Your task to perform on an android device: toggle show notifications on the lock screen Image 0: 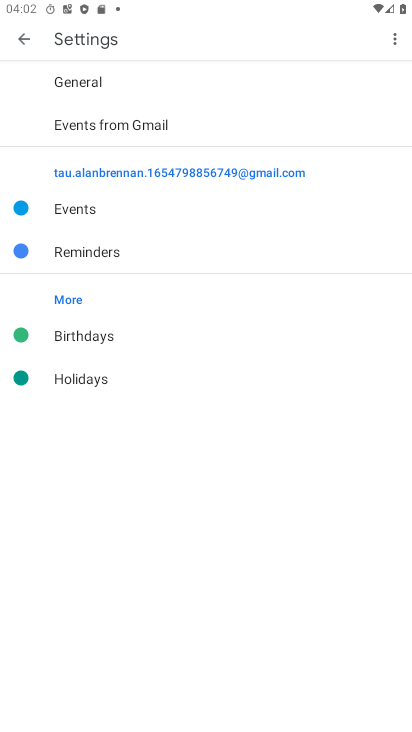
Step 0: press home button
Your task to perform on an android device: toggle show notifications on the lock screen Image 1: 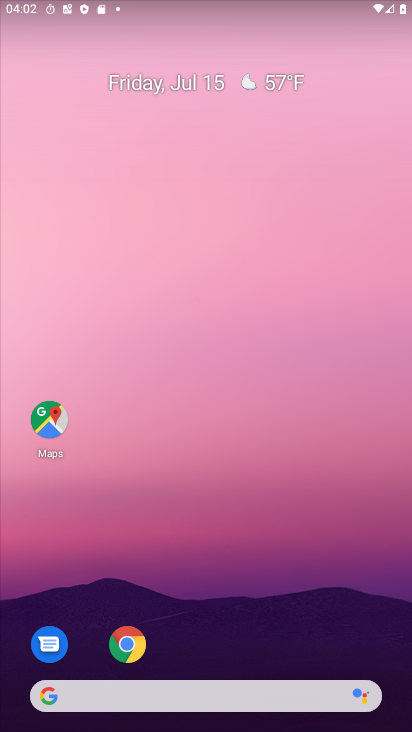
Step 1: drag from (276, 617) to (205, 9)
Your task to perform on an android device: toggle show notifications on the lock screen Image 2: 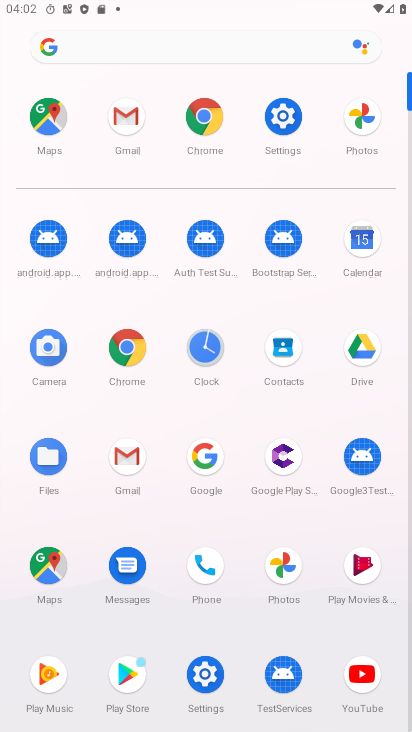
Step 2: click (286, 123)
Your task to perform on an android device: toggle show notifications on the lock screen Image 3: 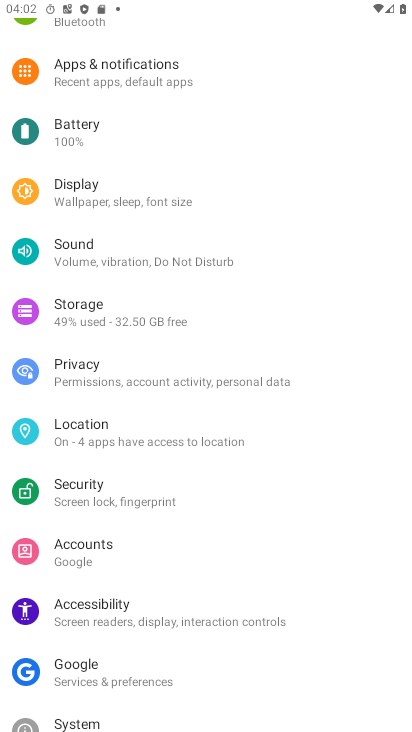
Step 3: click (137, 85)
Your task to perform on an android device: toggle show notifications on the lock screen Image 4: 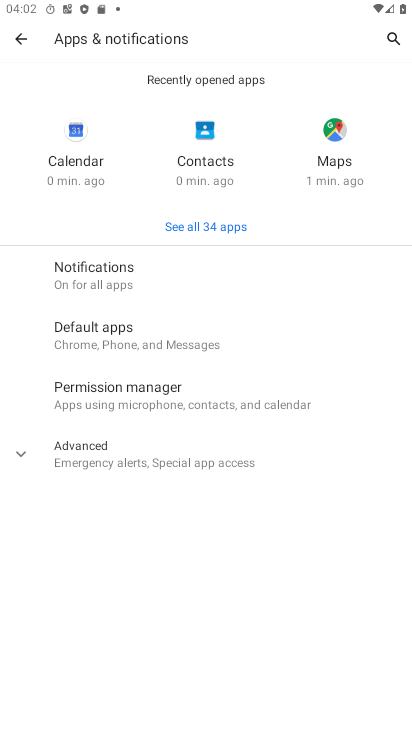
Step 4: click (169, 270)
Your task to perform on an android device: toggle show notifications on the lock screen Image 5: 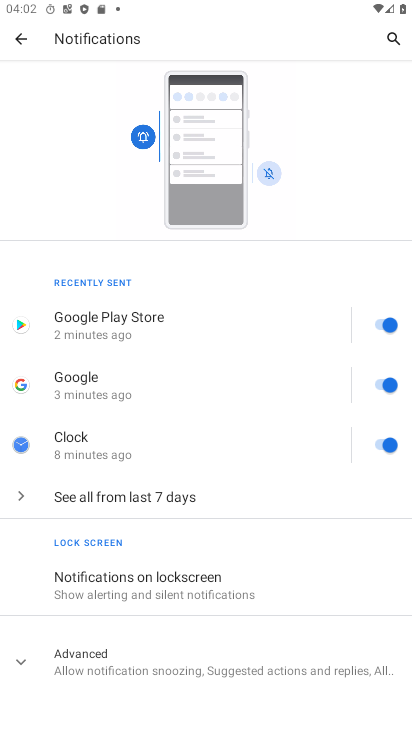
Step 5: click (231, 579)
Your task to perform on an android device: toggle show notifications on the lock screen Image 6: 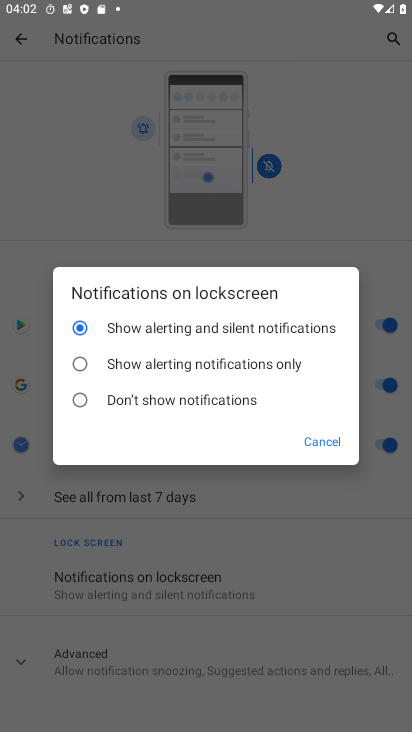
Step 6: click (230, 374)
Your task to perform on an android device: toggle show notifications on the lock screen Image 7: 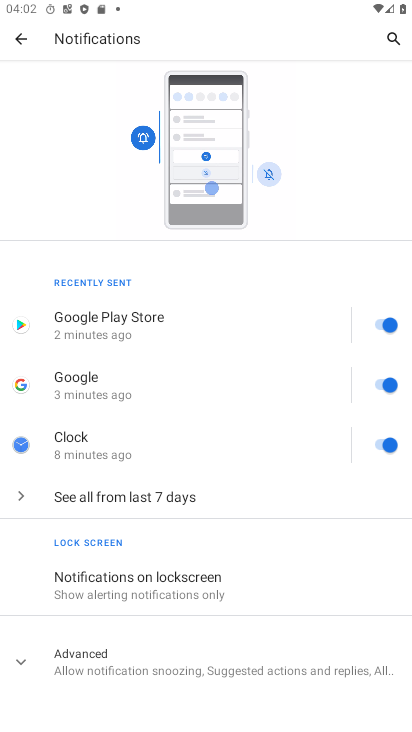
Step 7: task complete